Your task to perform on an android device: see tabs open on other devices in the chrome app Image 0: 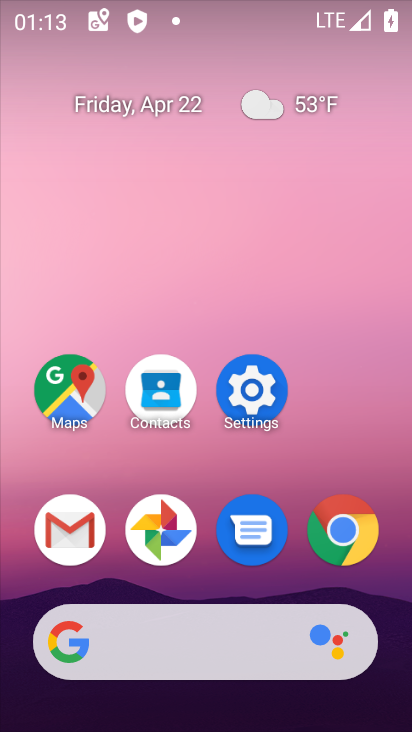
Step 0: click (342, 532)
Your task to perform on an android device: see tabs open on other devices in the chrome app Image 1: 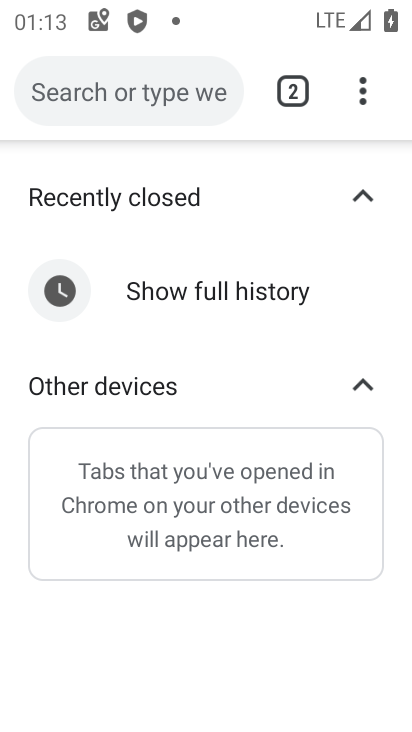
Step 1: click (364, 86)
Your task to perform on an android device: see tabs open on other devices in the chrome app Image 2: 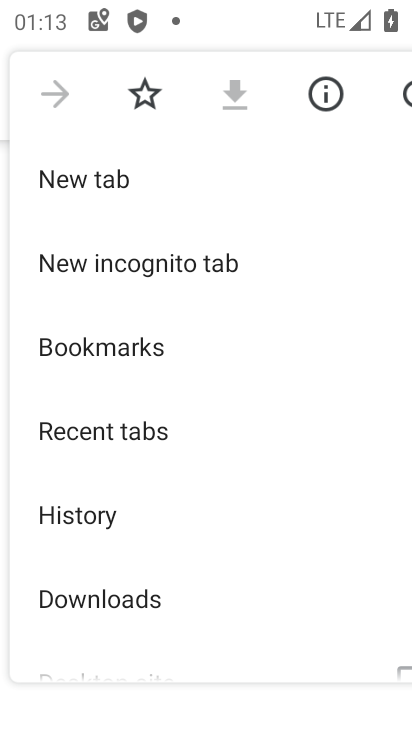
Step 2: drag from (234, 616) to (245, 181)
Your task to perform on an android device: see tabs open on other devices in the chrome app Image 3: 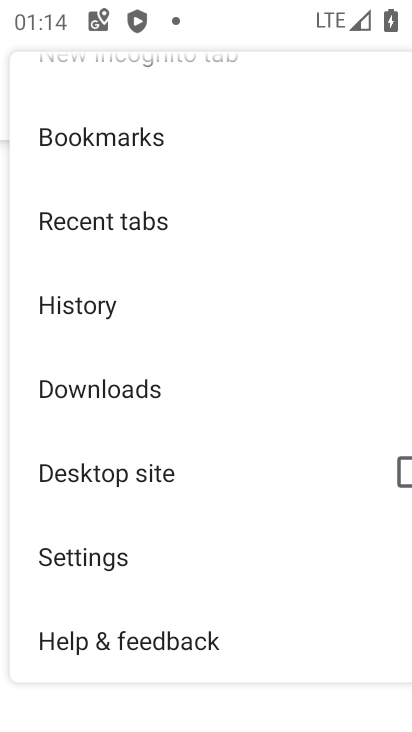
Step 3: click (132, 224)
Your task to perform on an android device: see tabs open on other devices in the chrome app Image 4: 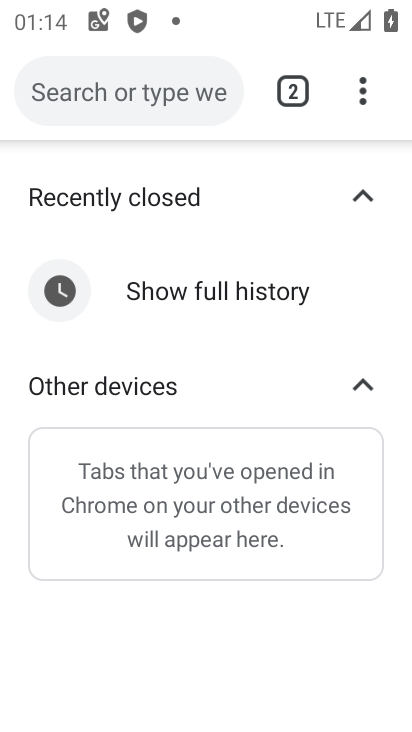
Step 4: task complete